Your task to perform on an android device: Open notification settings Image 0: 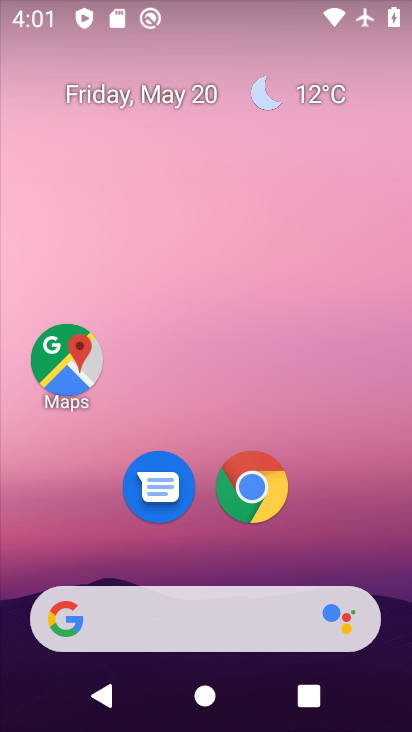
Step 0: drag from (208, 554) to (232, 162)
Your task to perform on an android device: Open notification settings Image 1: 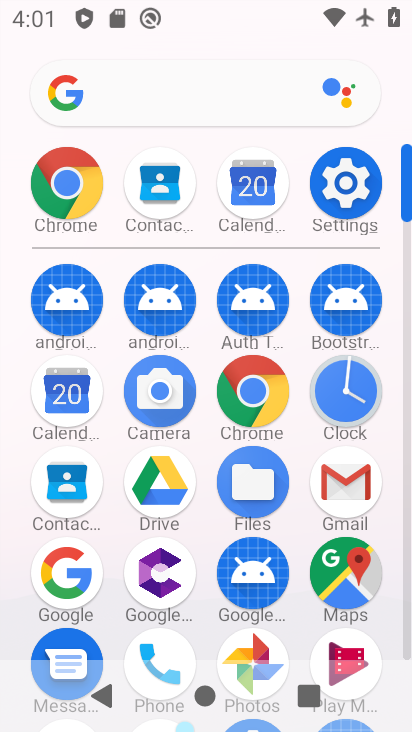
Step 1: click (330, 186)
Your task to perform on an android device: Open notification settings Image 2: 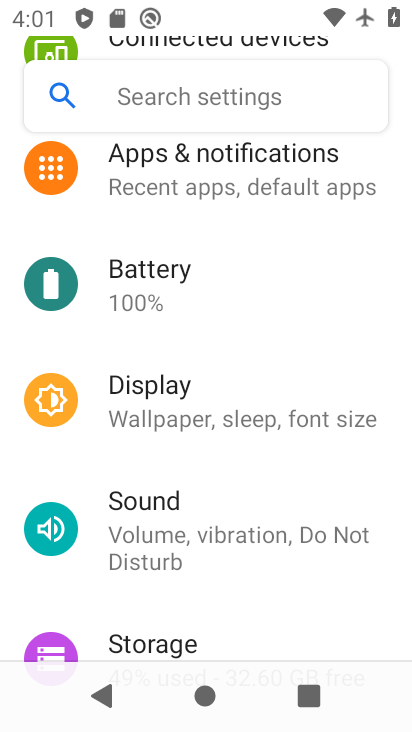
Step 2: drag from (215, 276) to (170, 634)
Your task to perform on an android device: Open notification settings Image 3: 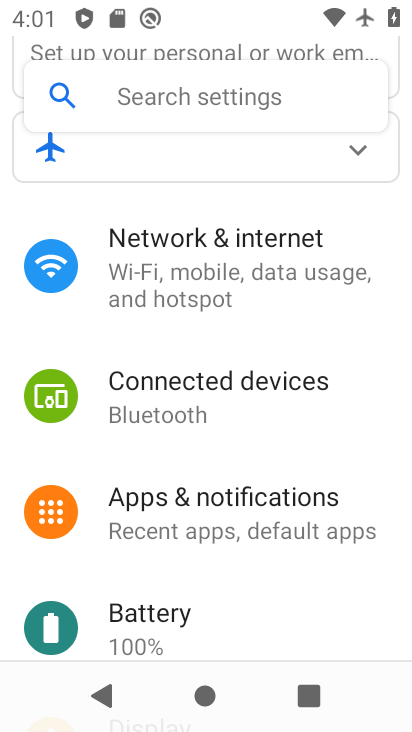
Step 3: click (233, 535)
Your task to perform on an android device: Open notification settings Image 4: 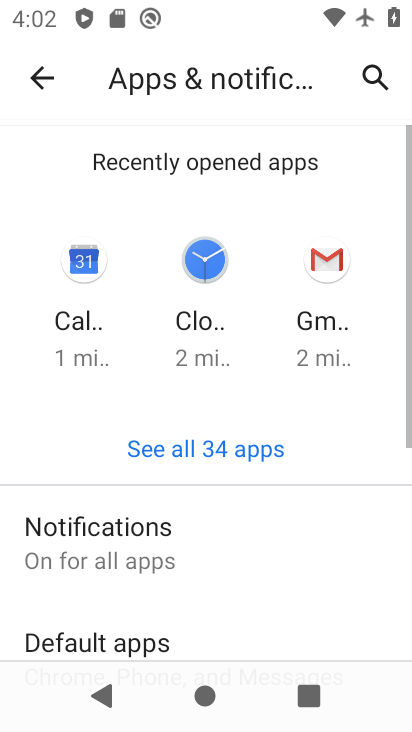
Step 4: click (103, 560)
Your task to perform on an android device: Open notification settings Image 5: 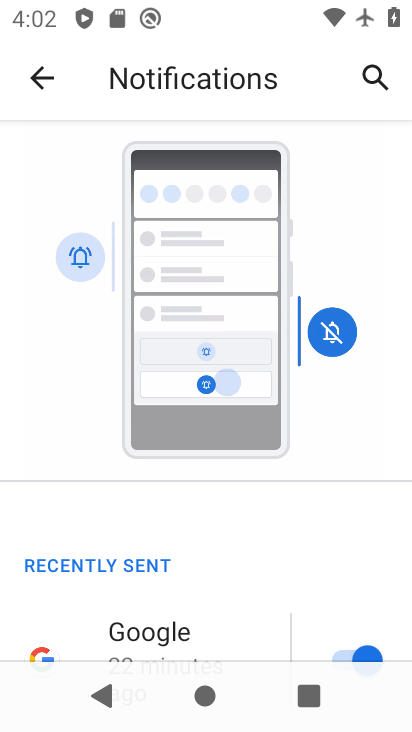
Step 5: task complete